Your task to perform on an android device: Open network settings Image 0: 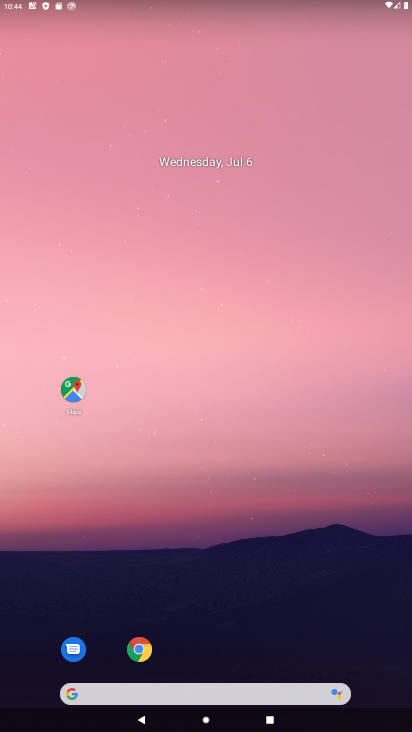
Step 0: drag from (378, 664) to (268, 0)
Your task to perform on an android device: Open network settings Image 1: 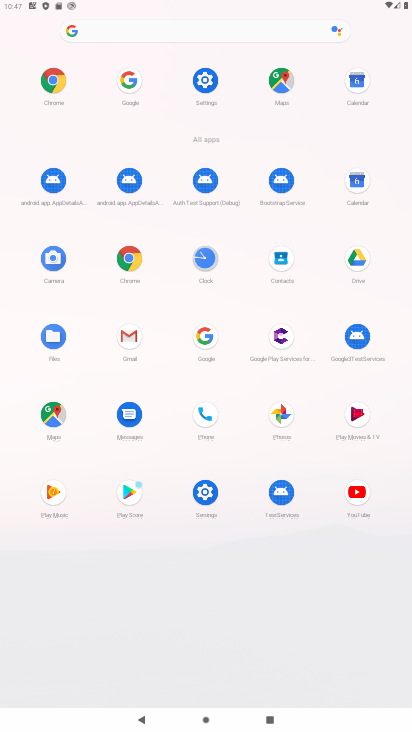
Step 1: click (206, 502)
Your task to perform on an android device: Open network settings Image 2: 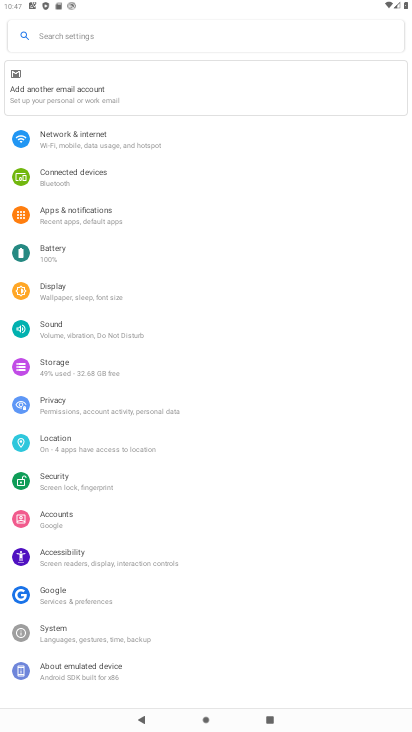
Step 2: click (78, 145)
Your task to perform on an android device: Open network settings Image 3: 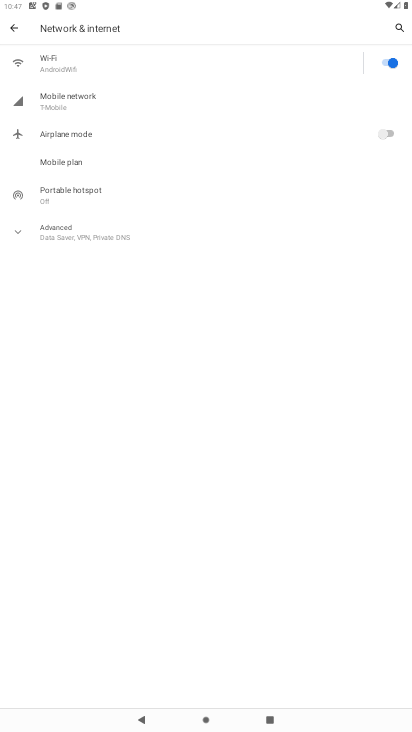
Step 3: task complete